Your task to perform on an android device: see sites visited before in the chrome app Image 0: 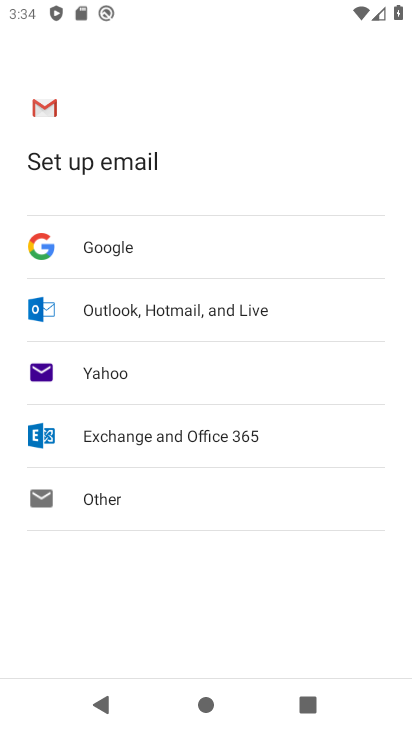
Step 0: press home button
Your task to perform on an android device: see sites visited before in the chrome app Image 1: 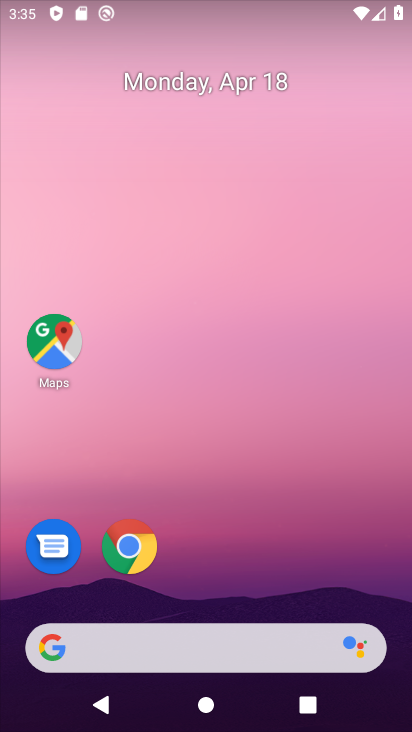
Step 1: click (136, 552)
Your task to perform on an android device: see sites visited before in the chrome app Image 2: 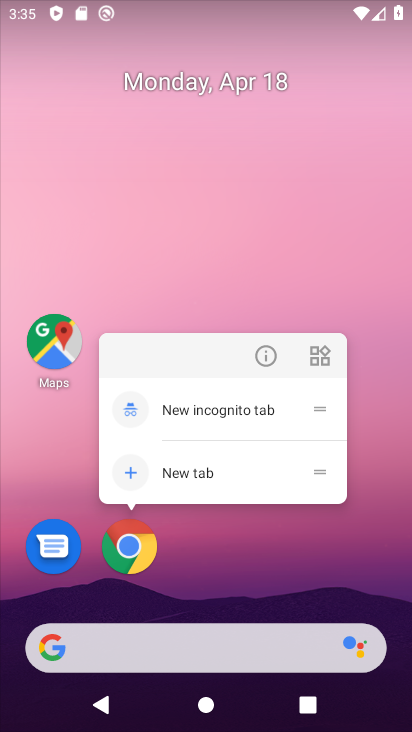
Step 2: click (120, 554)
Your task to perform on an android device: see sites visited before in the chrome app Image 3: 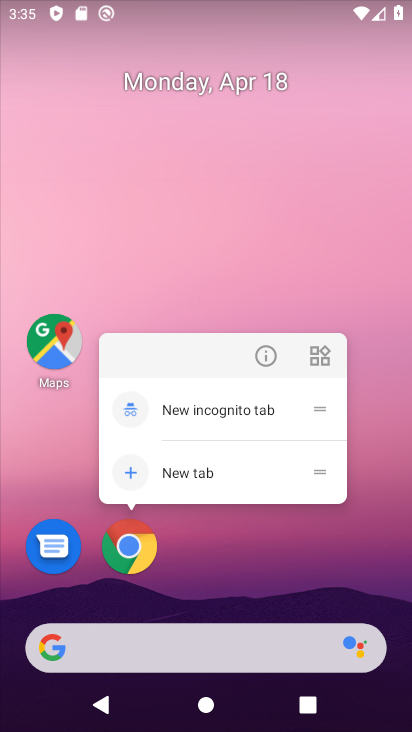
Step 3: click (127, 550)
Your task to perform on an android device: see sites visited before in the chrome app Image 4: 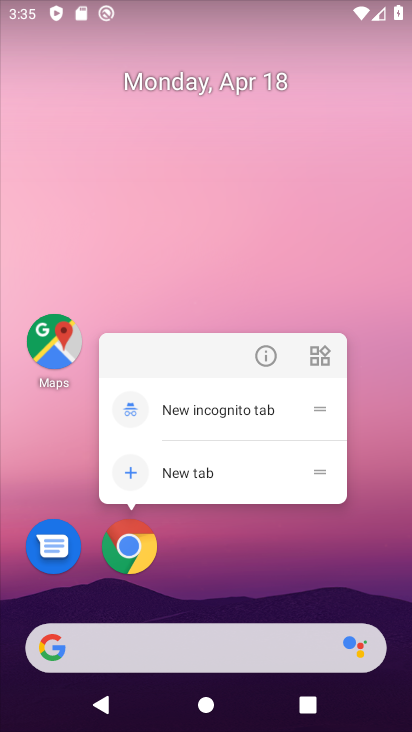
Step 4: drag from (242, 593) to (268, 22)
Your task to perform on an android device: see sites visited before in the chrome app Image 5: 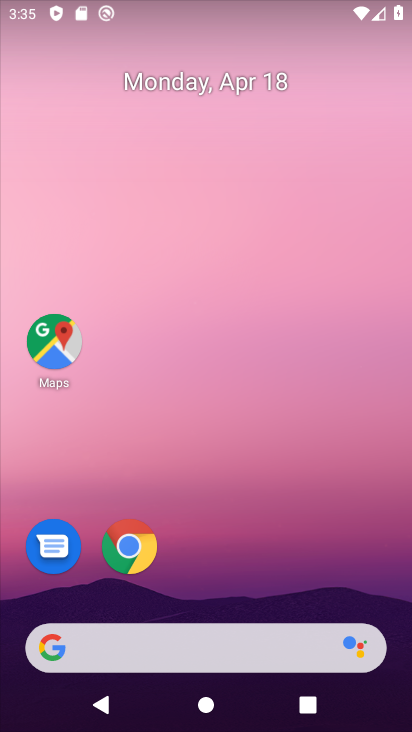
Step 5: drag from (351, 575) to (268, 153)
Your task to perform on an android device: see sites visited before in the chrome app Image 6: 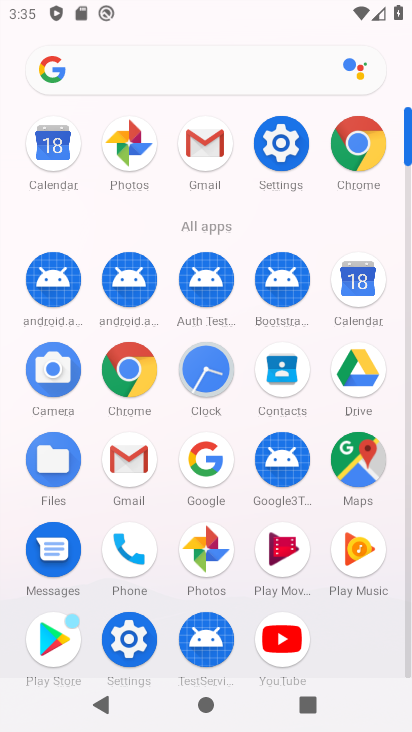
Step 6: click (351, 148)
Your task to perform on an android device: see sites visited before in the chrome app Image 7: 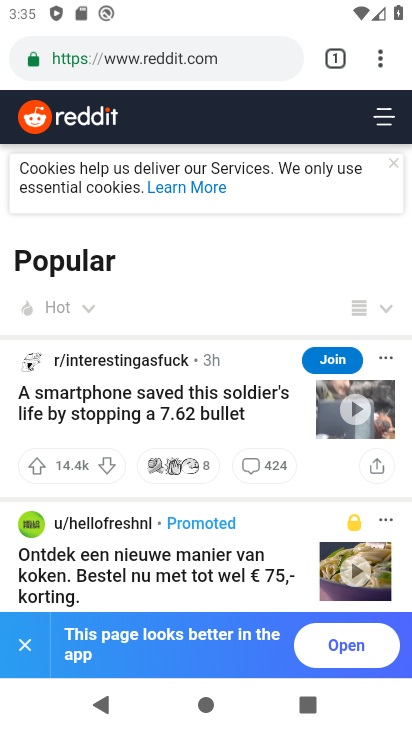
Step 7: task complete